Your task to perform on an android device: Go to settings Image 0: 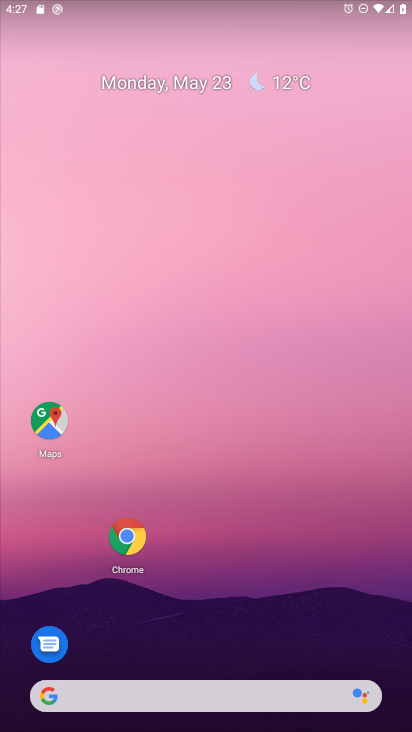
Step 0: drag from (249, 596) to (273, 118)
Your task to perform on an android device: Go to settings Image 1: 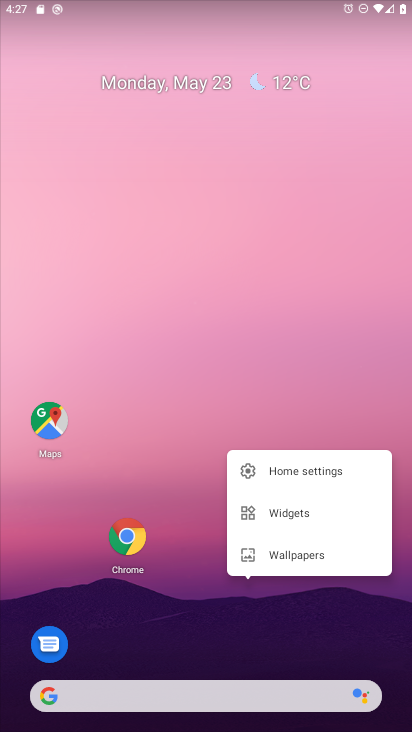
Step 1: click (141, 491)
Your task to perform on an android device: Go to settings Image 2: 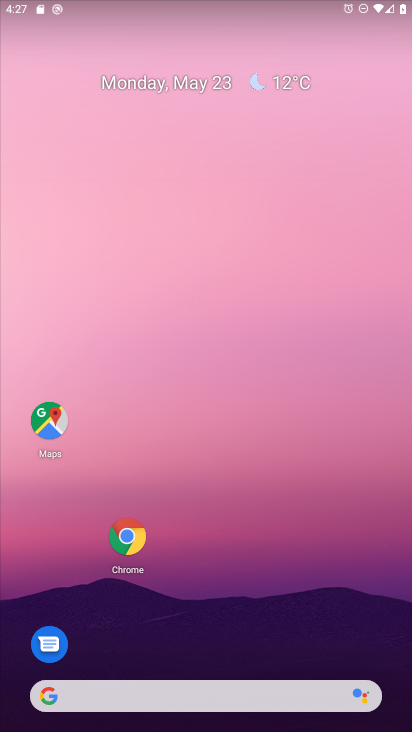
Step 2: drag from (204, 580) to (258, 151)
Your task to perform on an android device: Go to settings Image 3: 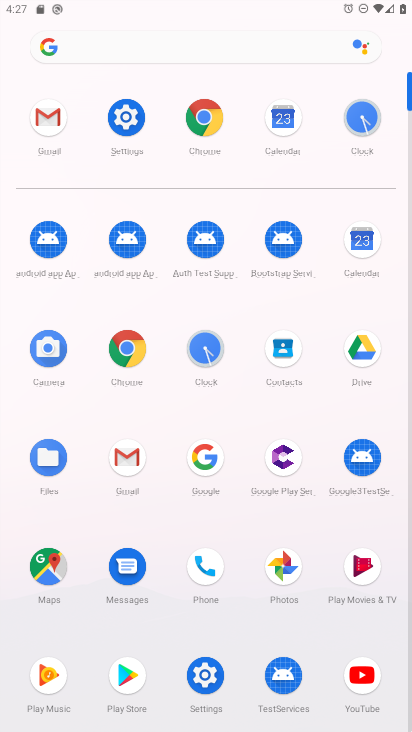
Step 3: click (134, 127)
Your task to perform on an android device: Go to settings Image 4: 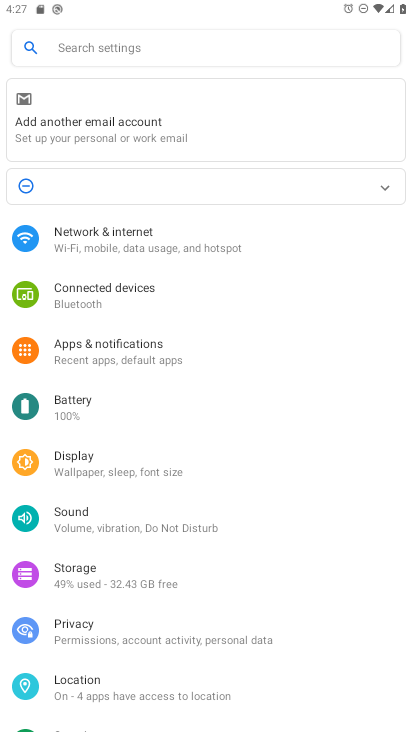
Step 4: task complete